Your task to perform on an android device: Open Google Maps Image 0: 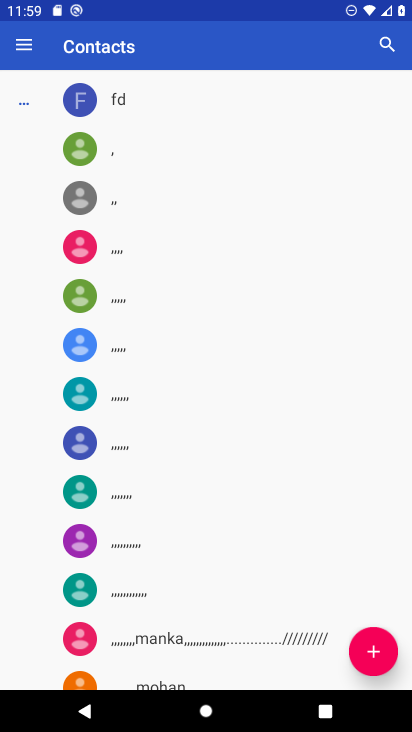
Step 0: press home button
Your task to perform on an android device: Open Google Maps Image 1: 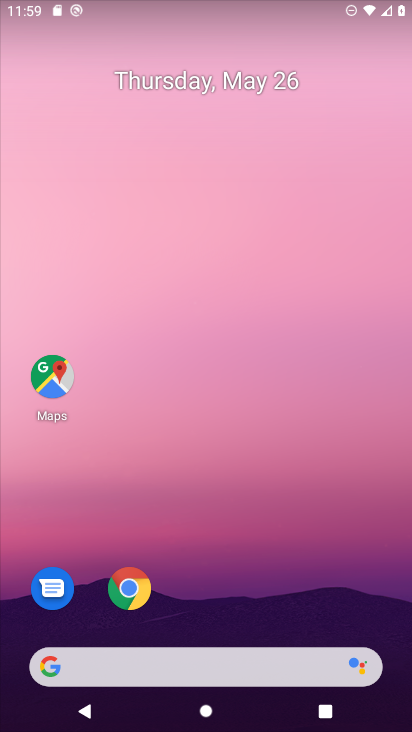
Step 1: click (52, 374)
Your task to perform on an android device: Open Google Maps Image 2: 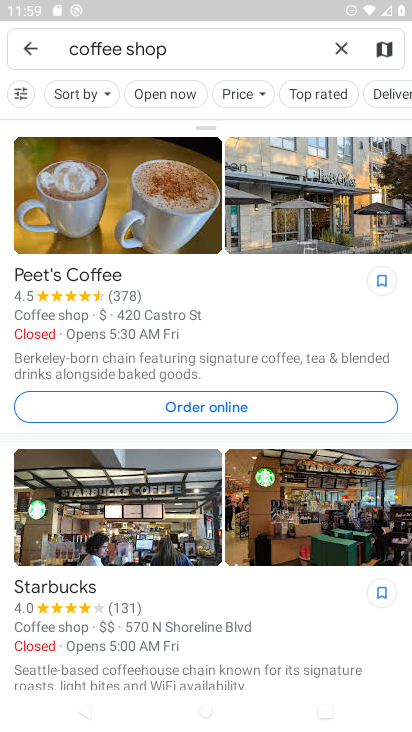
Step 2: click (336, 42)
Your task to perform on an android device: Open Google Maps Image 3: 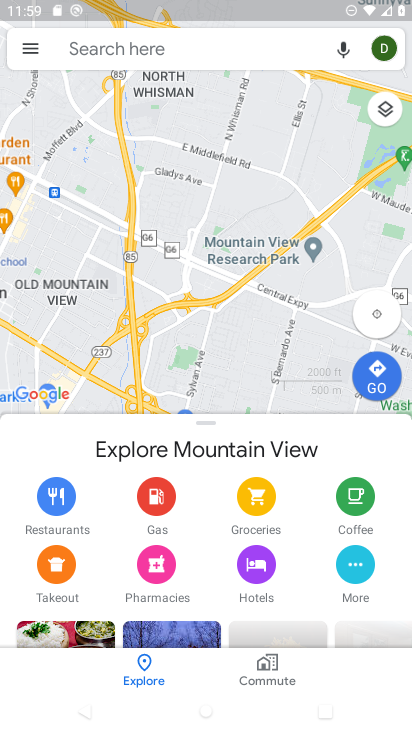
Step 3: task complete